Your task to perform on an android device: Search for "razer blade" on walmart, select the first entry, and add it to the cart. Image 0: 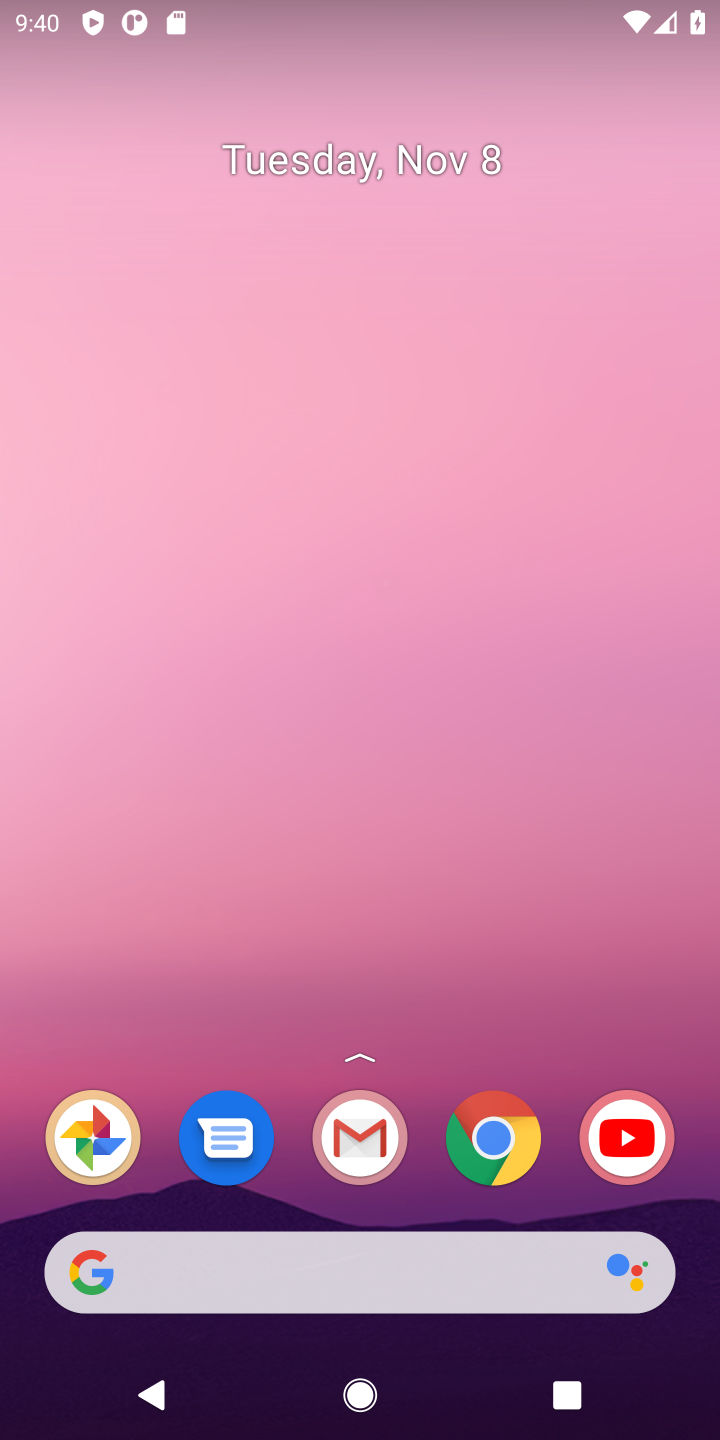
Step 0: press home button
Your task to perform on an android device: Search for "razer blade" on walmart, select the first entry, and add it to the cart. Image 1: 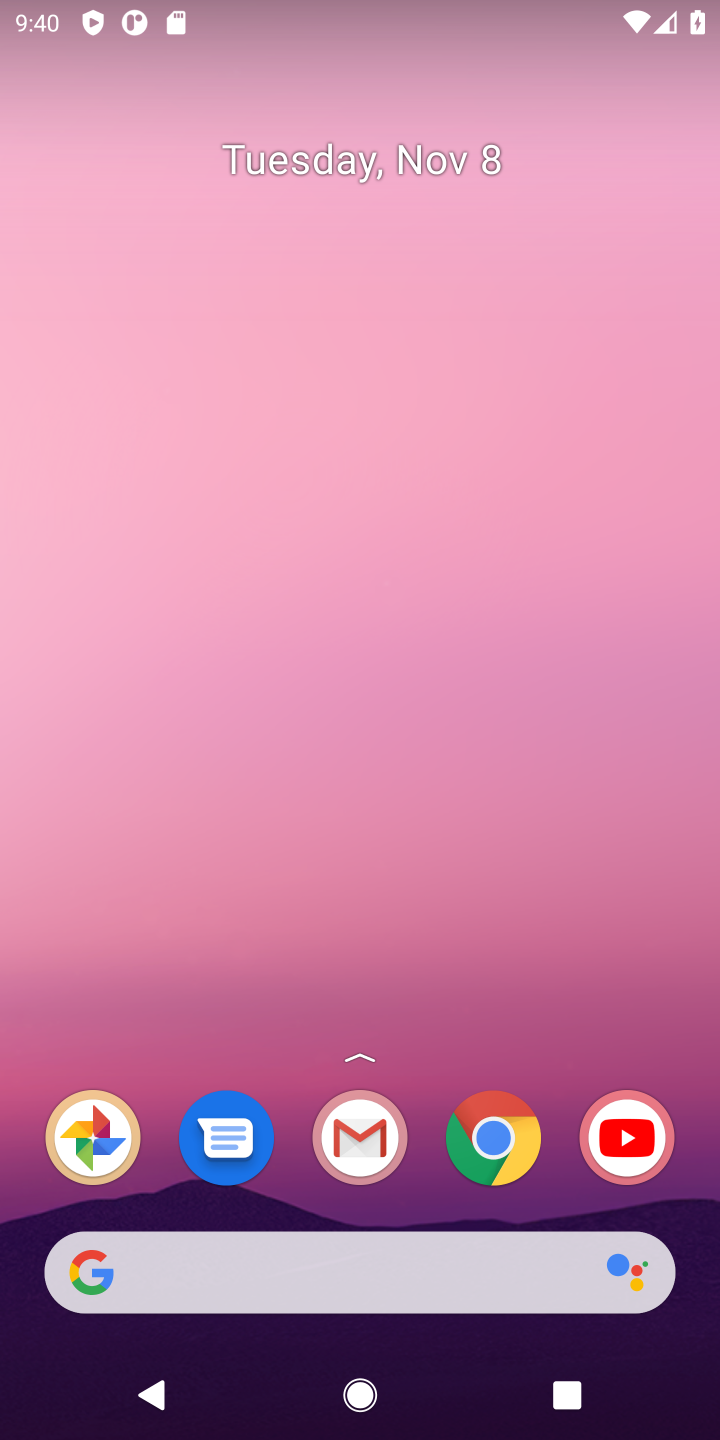
Step 1: click (490, 1127)
Your task to perform on an android device: Search for "razer blade" on walmart, select the first entry, and add it to the cart. Image 2: 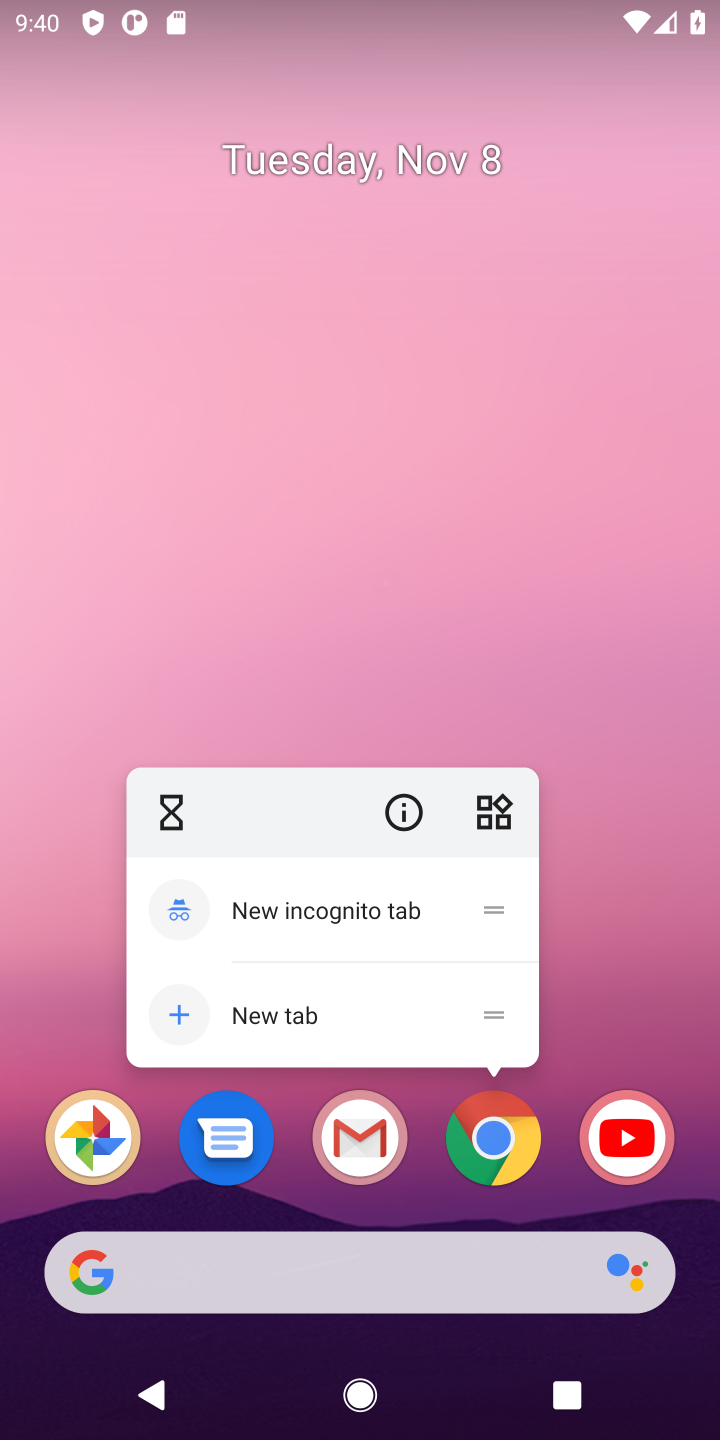
Step 2: click (490, 1137)
Your task to perform on an android device: Search for "razer blade" on walmart, select the first entry, and add it to the cart. Image 3: 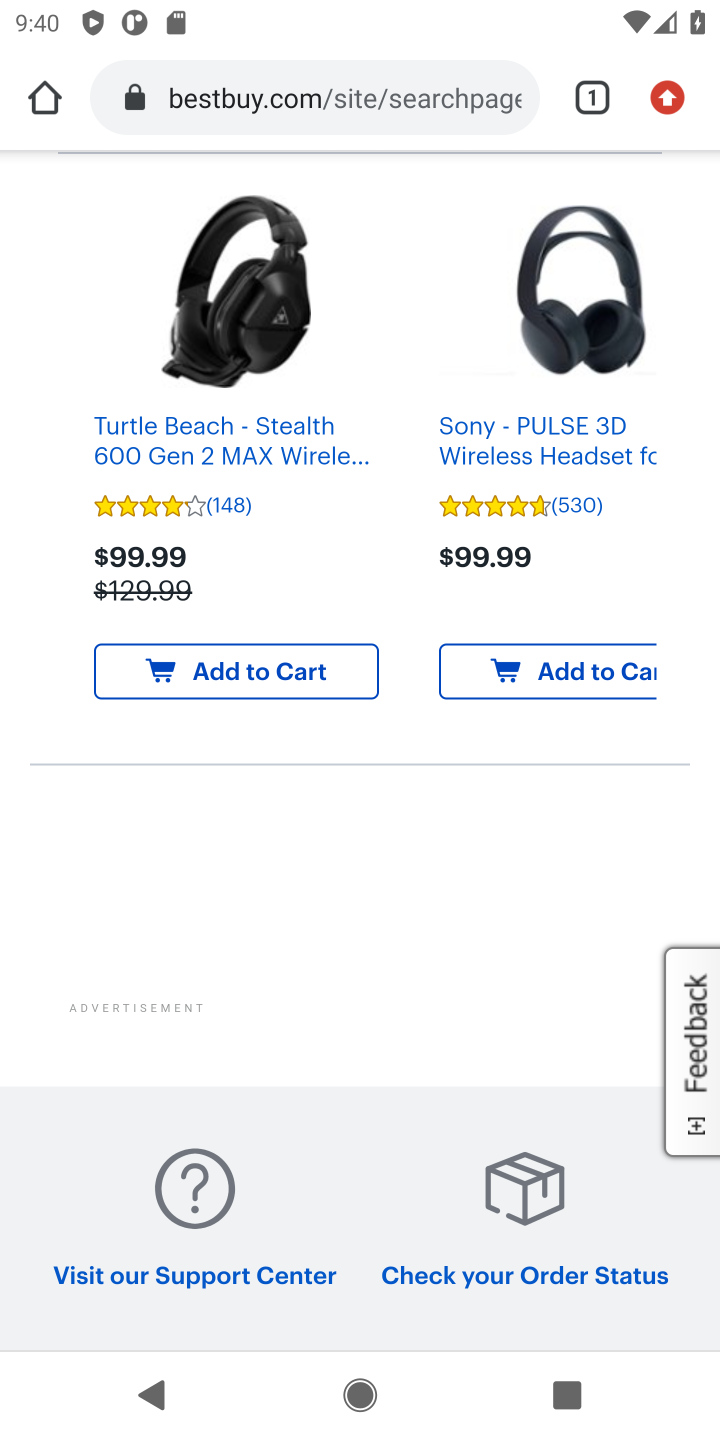
Step 3: click (358, 85)
Your task to perform on an android device: Search for "razer blade" on walmart, select the first entry, and add it to the cart. Image 4: 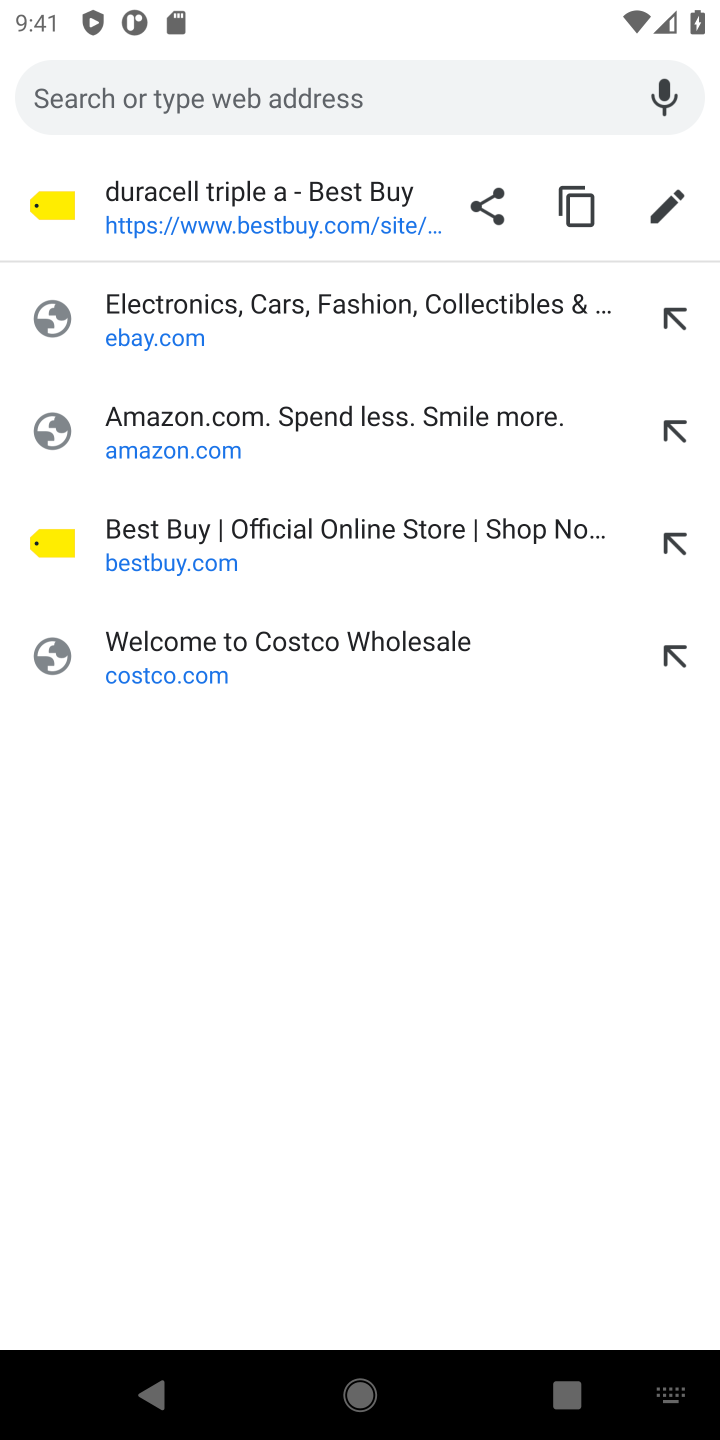
Step 4: press enter
Your task to perform on an android device: Search for "razer blade" on walmart, select the first entry, and add it to the cart. Image 5: 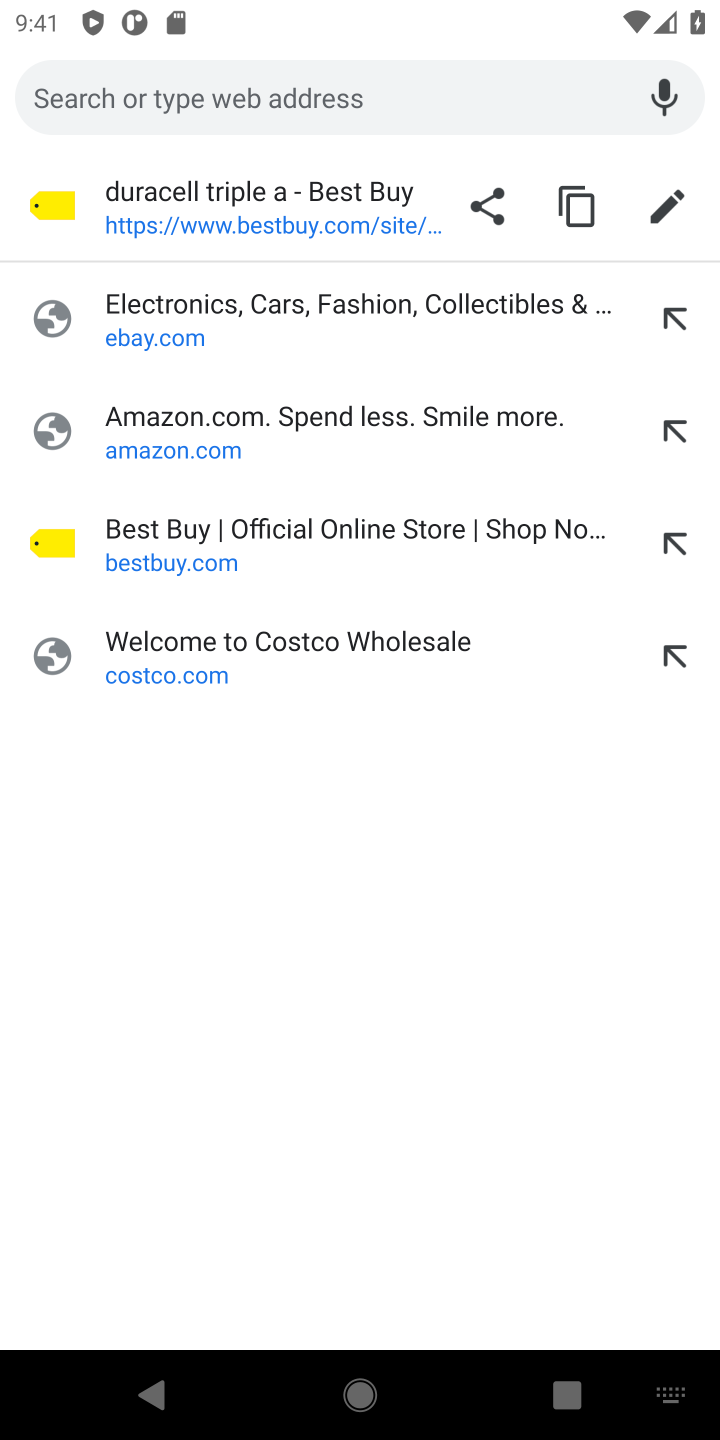
Step 5: type "walmart"
Your task to perform on an android device: Search for "razer blade" on walmart, select the first entry, and add it to the cart. Image 6: 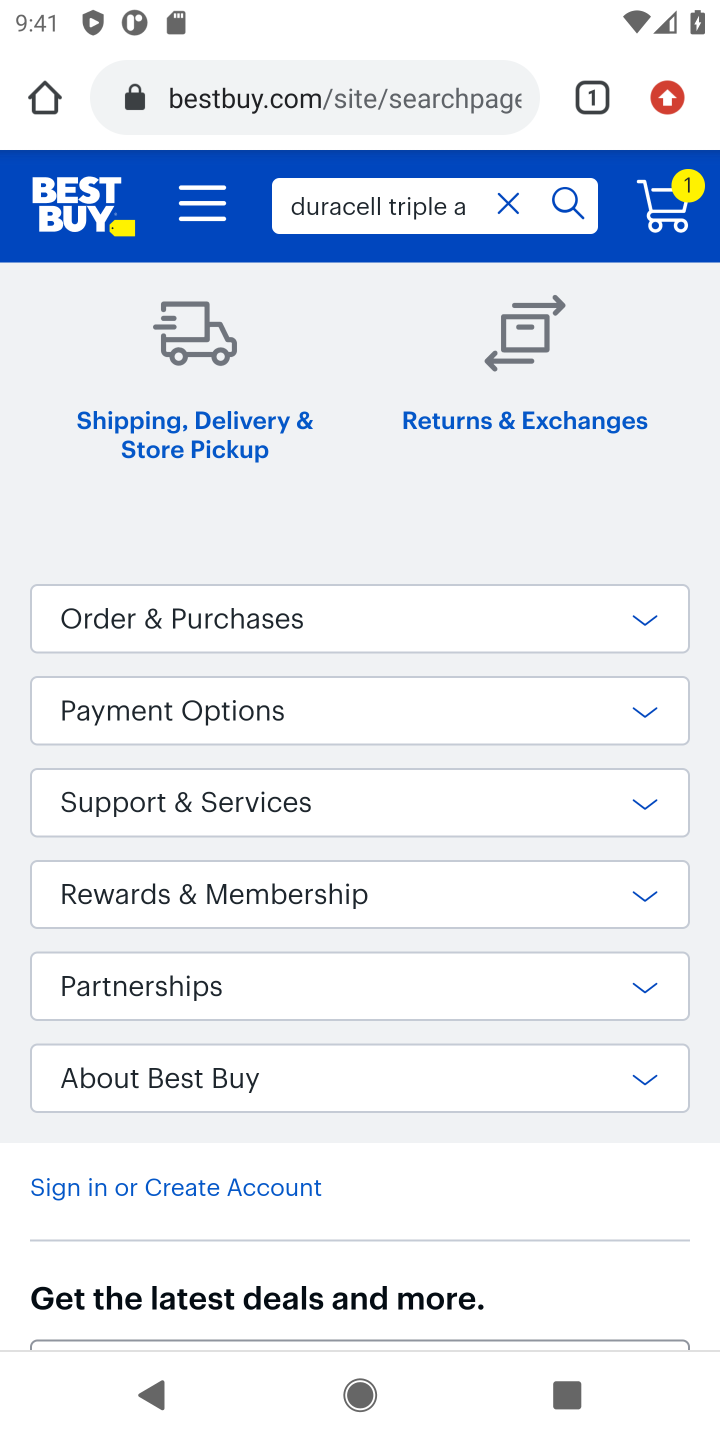
Step 6: click (340, 88)
Your task to perform on an android device: Search for "razer blade" on walmart, select the first entry, and add it to the cart. Image 7: 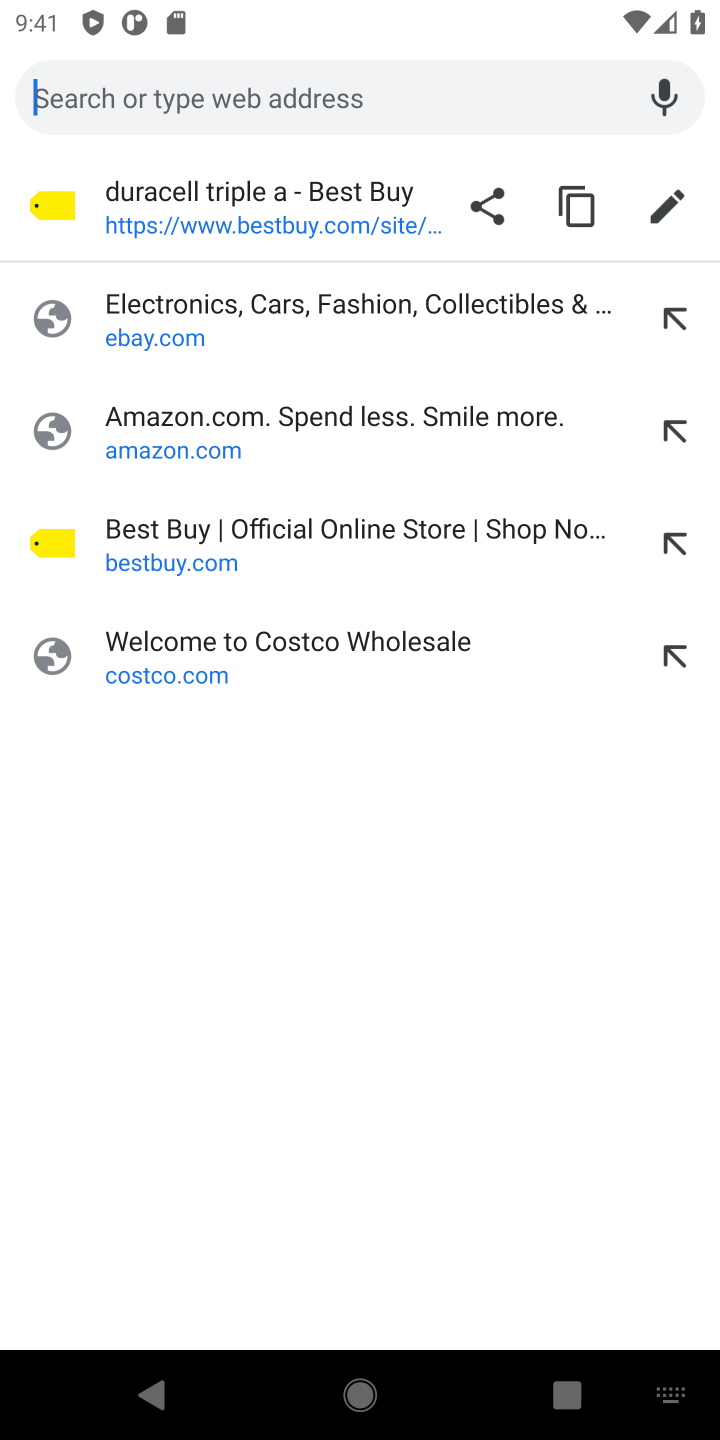
Step 7: type "walmart"
Your task to perform on an android device: Search for "razer blade" on walmart, select the first entry, and add it to the cart. Image 8: 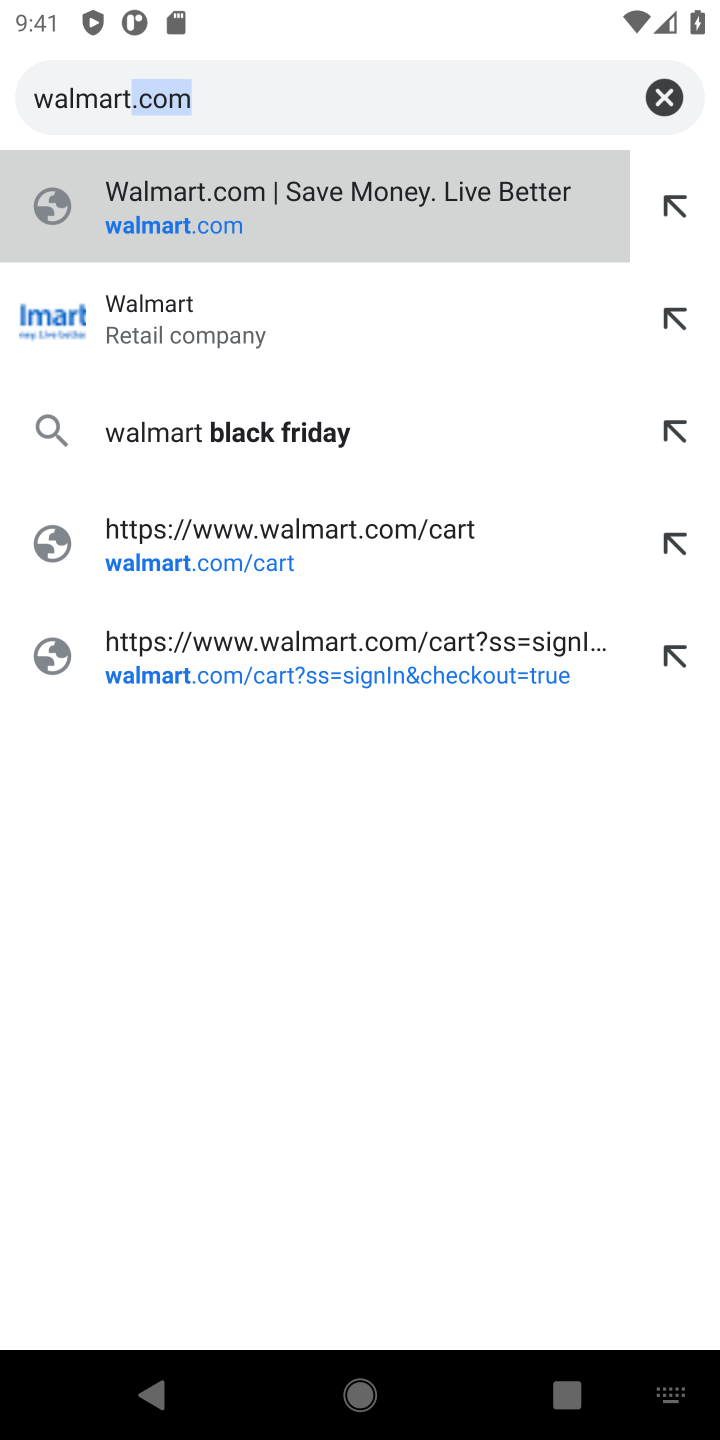
Step 8: press enter
Your task to perform on an android device: Search for "razer blade" on walmart, select the first entry, and add it to the cart. Image 9: 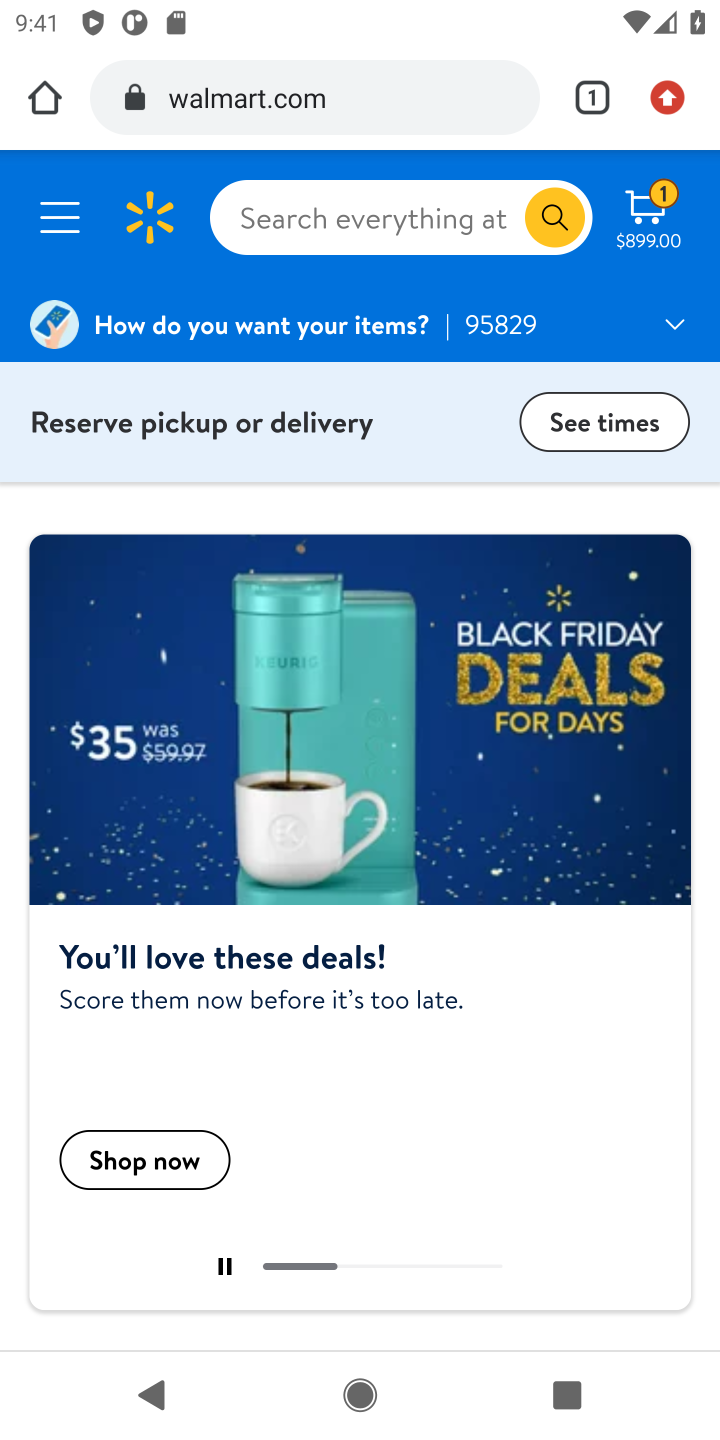
Step 9: click (416, 218)
Your task to perform on an android device: Search for "razer blade" on walmart, select the first entry, and add it to the cart. Image 10: 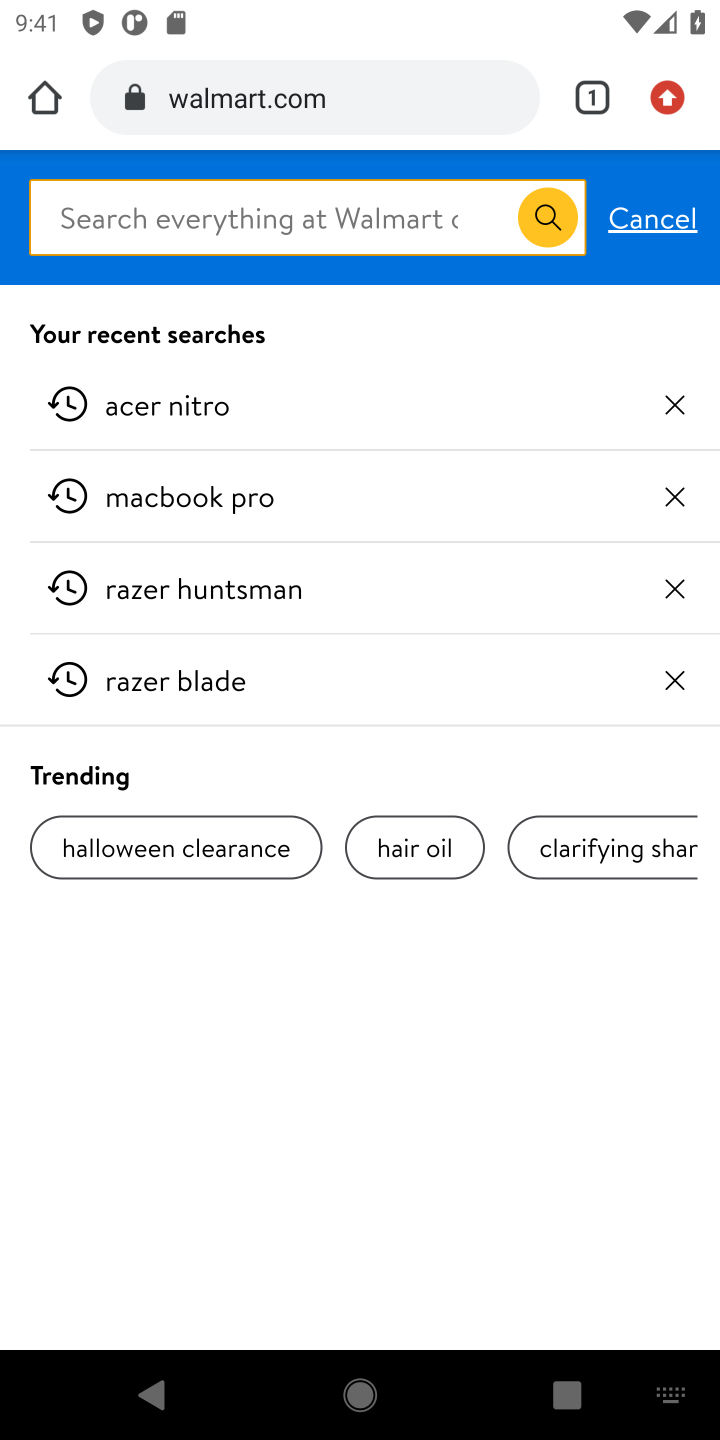
Step 10: type "razer blade"
Your task to perform on an android device: Search for "razer blade" on walmart, select the first entry, and add it to the cart. Image 11: 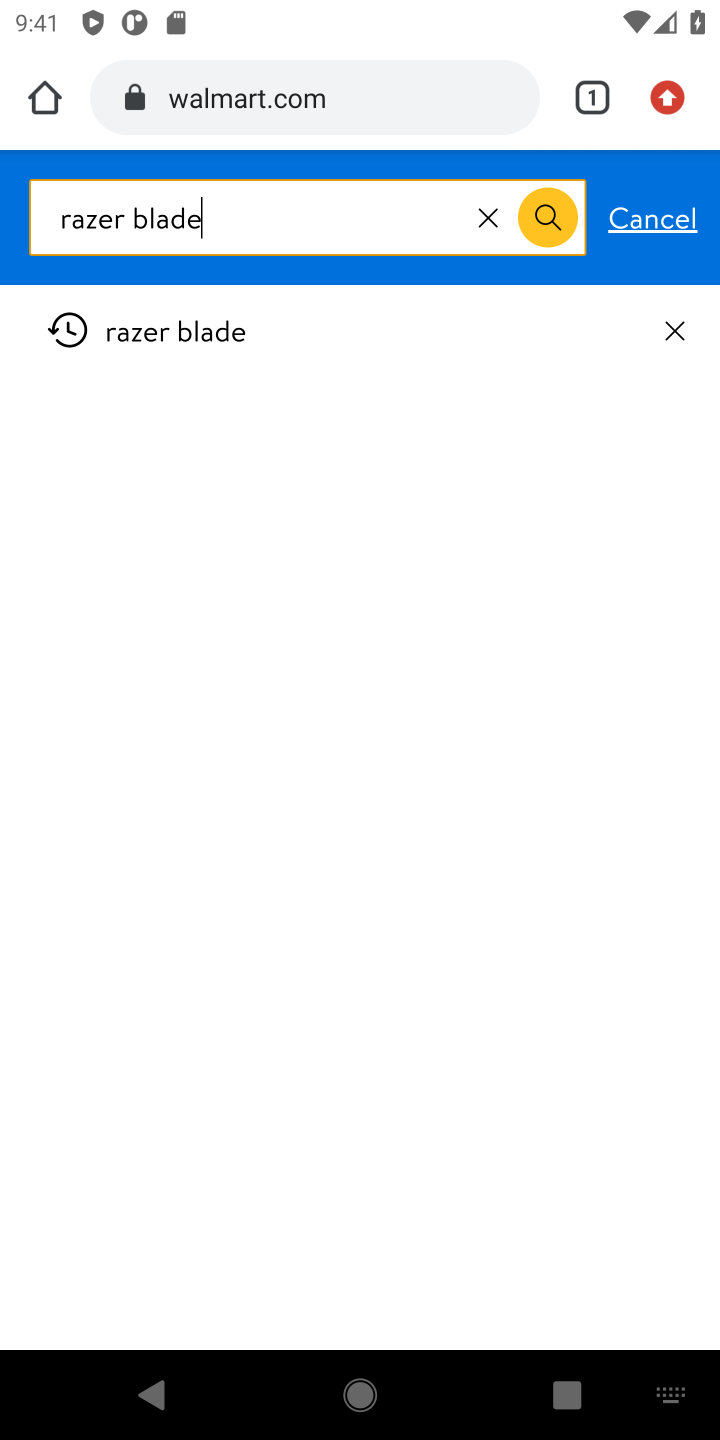
Step 11: press enter
Your task to perform on an android device: Search for "razer blade" on walmart, select the first entry, and add it to the cart. Image 12: 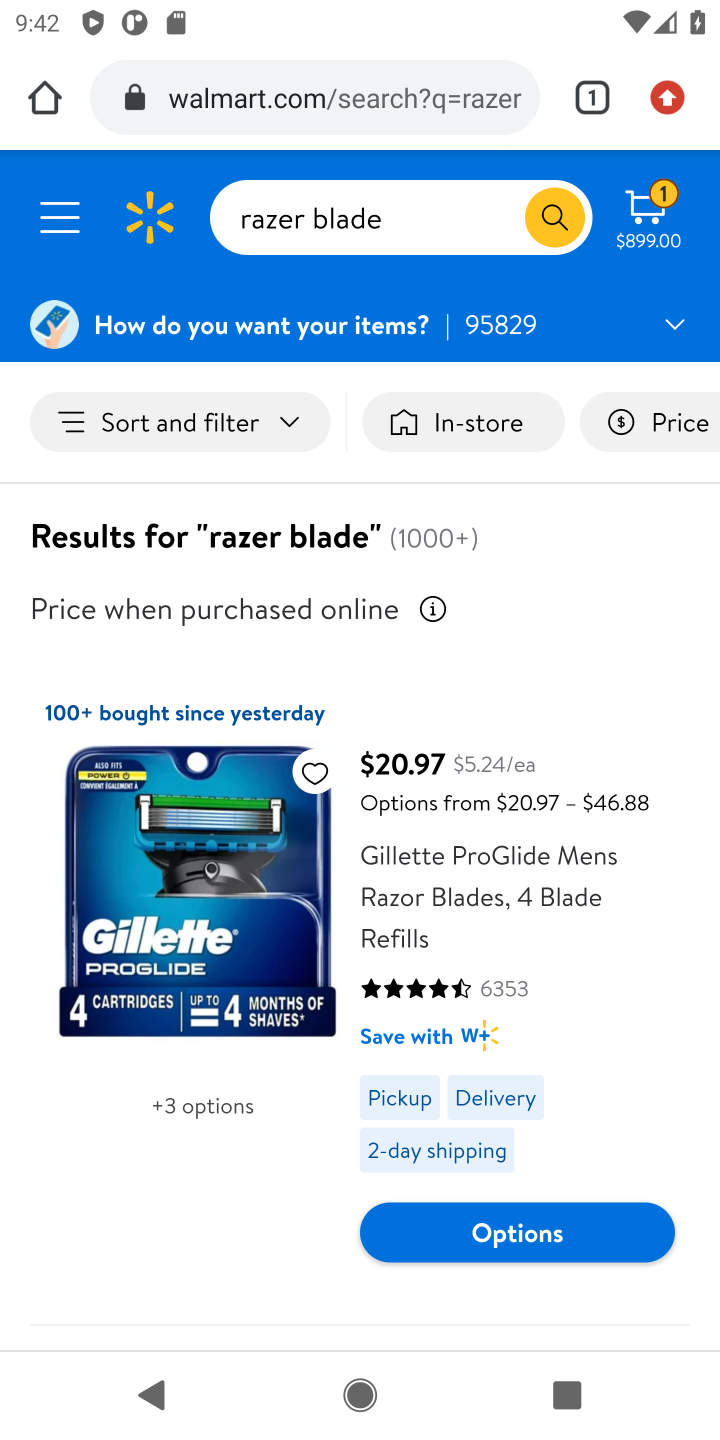
Step 12: click (485, 859)
Your task to perform on an android device: Search for "razer blade" on walmart, select the first entry, and add it to the cart. Image 13: 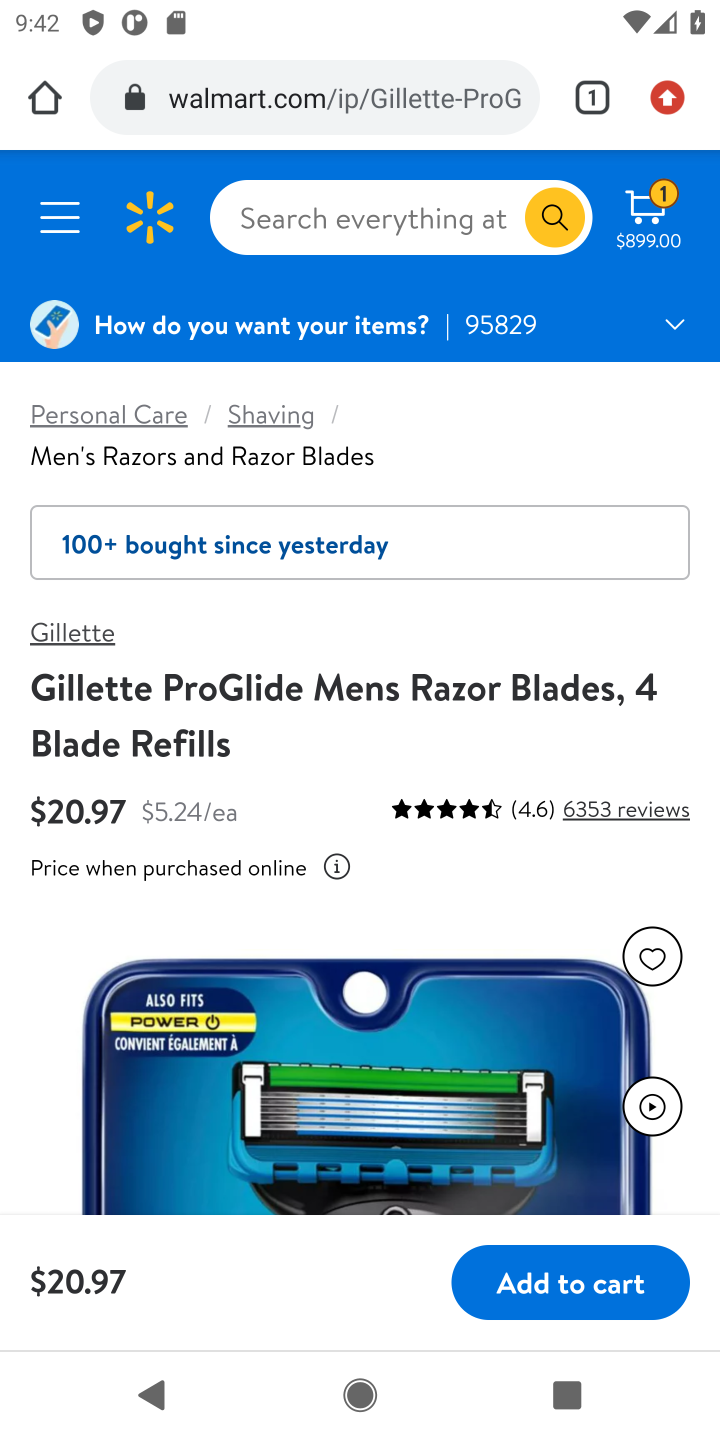
Step 13: click (589, 1276)
Your task to perform on an android device: Search for "razer blade" on walmart, select the first entry, and add it to the cart. Image 14: 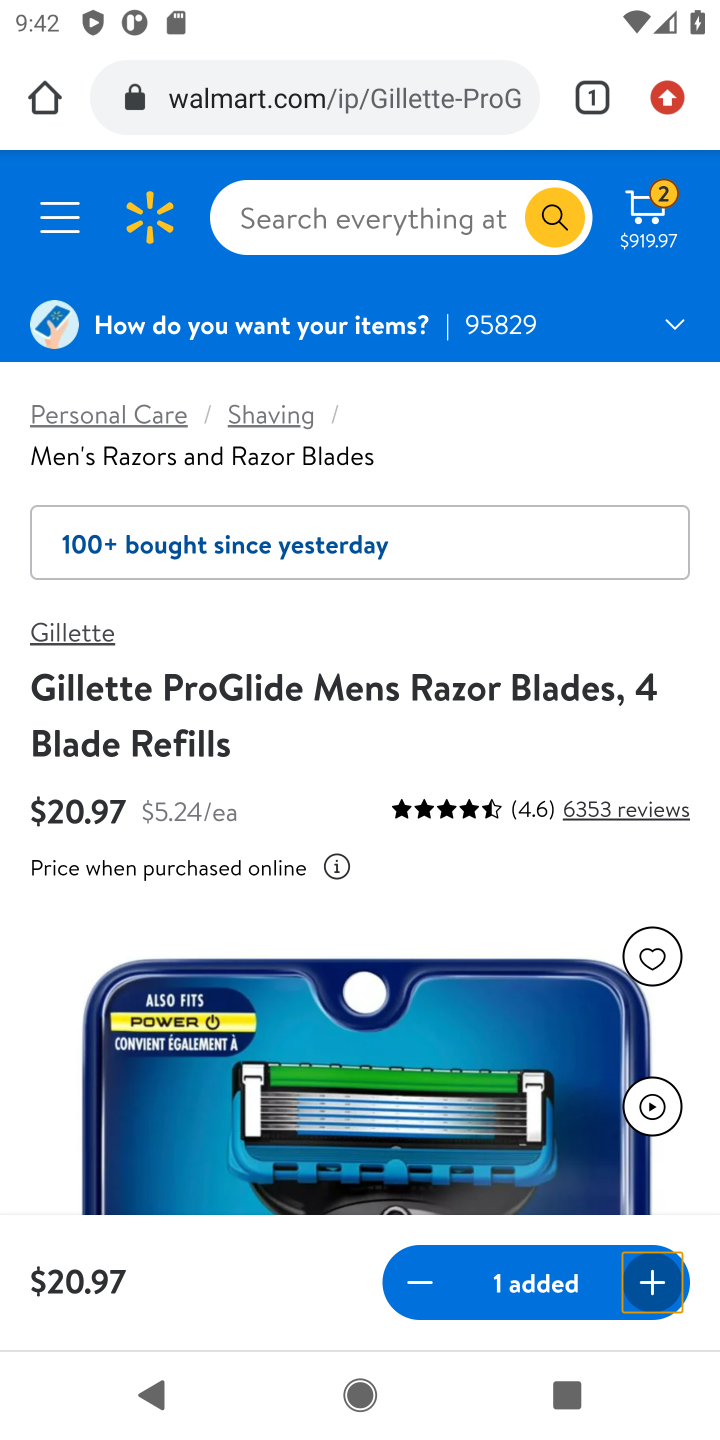
Step 14: click (653, 196)
Your task to perform on an android device: Search for "razer blade" on walmart, select the first entry, and add it to the cart. Image 15: 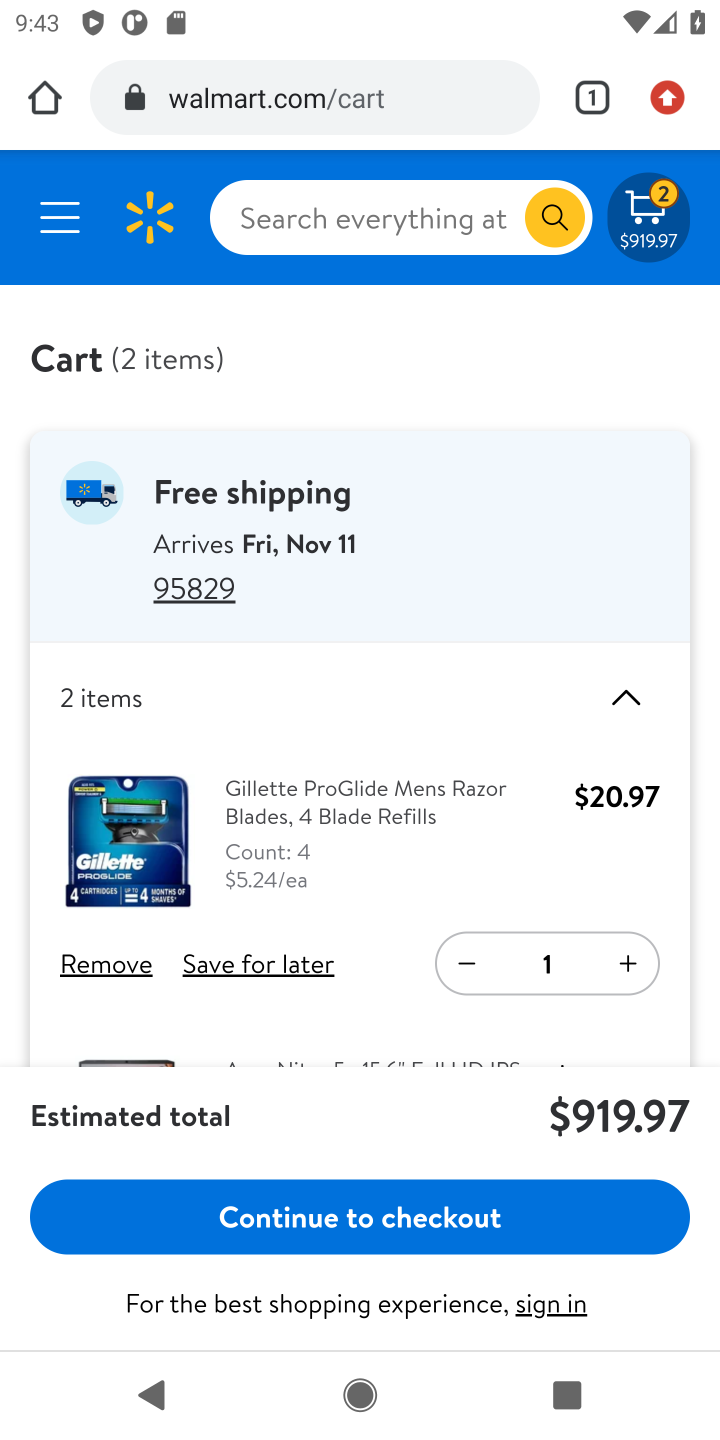
Step 15: task complete